Your task to perform on an android device: Do I have any events tomorrow? Image 0: 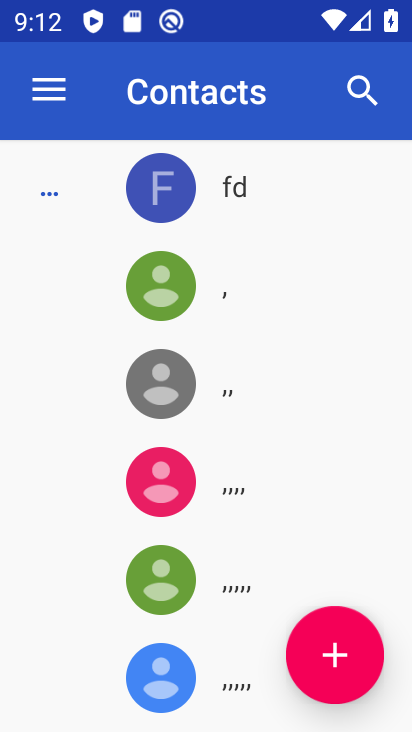
Step 0: press home button
Your task to perform on an android device: Do I have any events tomorrow? Image 1: 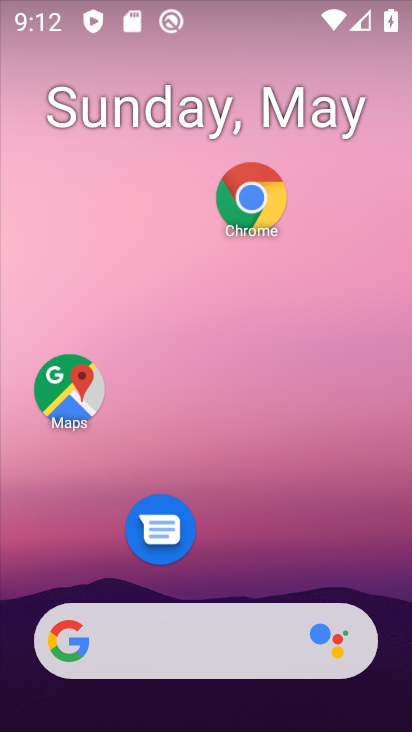
Step 1: drag from (261, 564) to (265, 146)
Your task to perform on an android device: Do I have any events tomorrow? Image 2: 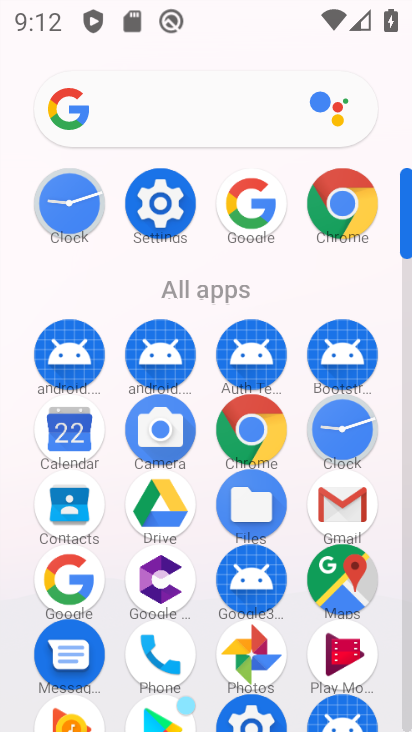
Step 2: click (72, 439)
Your task to perform on an android device: Do I have any events tomorrow? Image 3: 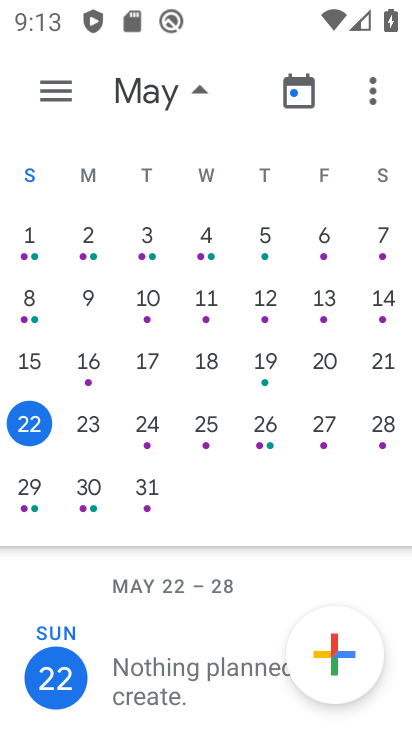
Step 3: click (75, 428)
Your task to perform on an android device: Do I have any events tomorrow? Image 4: 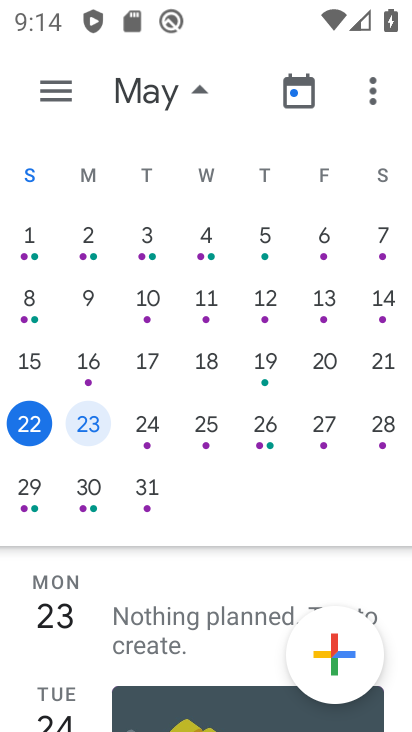
Step 4: task complete